Your task to perform on an android device: delete a single message in the gmail app Image 0: 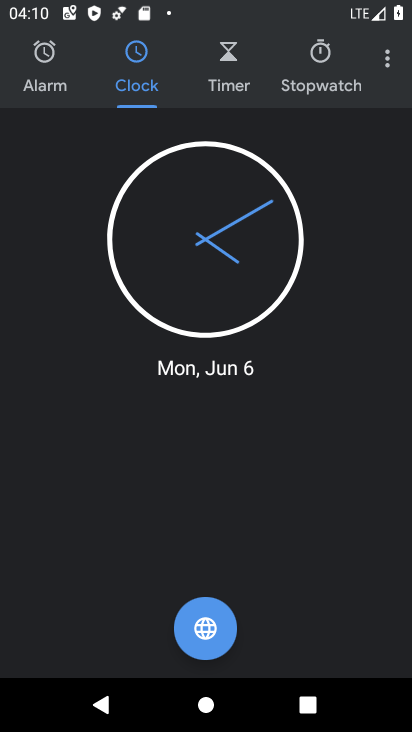
Step 0: press home button
Your task to perform on an android device: delete a single message in the gmail app Image 1: 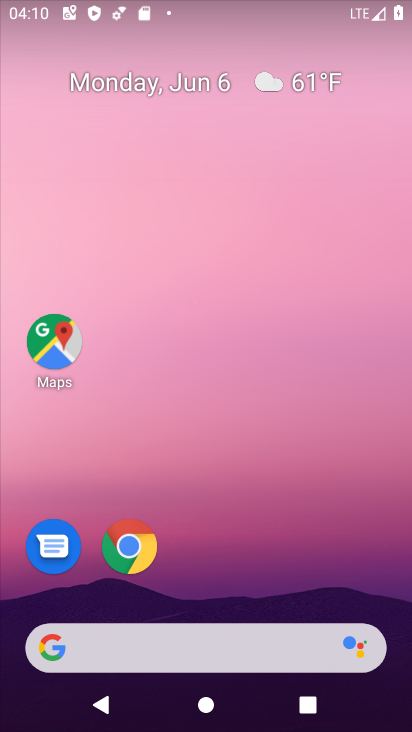
Step 1: drag from (233, 606) to (245, 308)
Your task to perform on an android device: delete a single message in the gmail app Image 2: 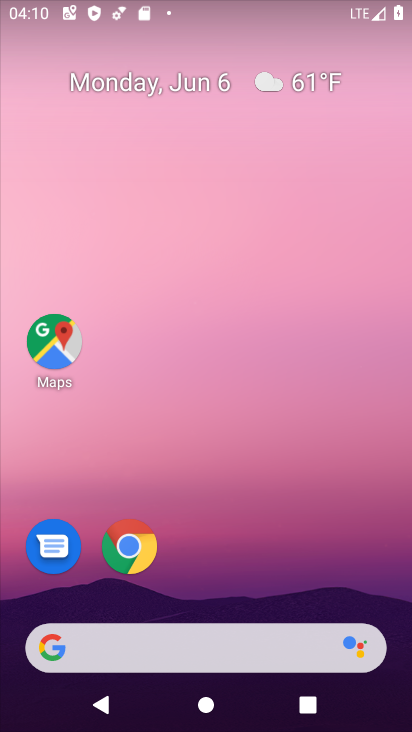
Step 2: drag from (225, 609) to (288, 181)
Your task to perform on an android device: delete a single message in the gmail app Image 3: 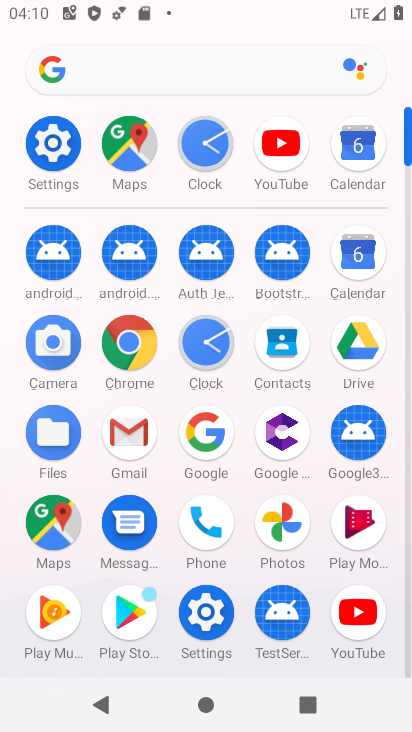
Step 3: click (128, 429)
Your task to perform on an android device: delete a single message in the gmail app Image 4: 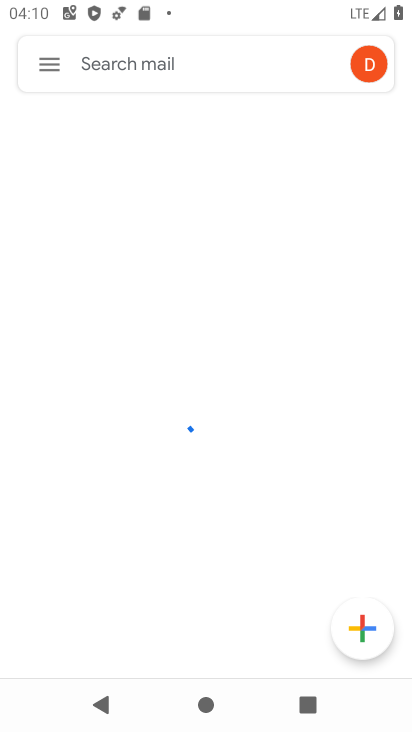
Step 4: click (48, 64)
Your task to perform on an android device: delete a single message in the gmail app Image 5: 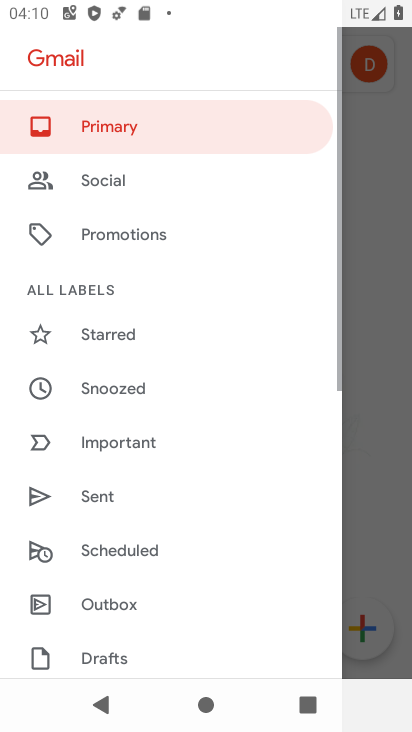
Step 5: drag from (196, 594) to (231, 161)
Your task to perform on an android device: delete a single message in the gmail app Image 6: 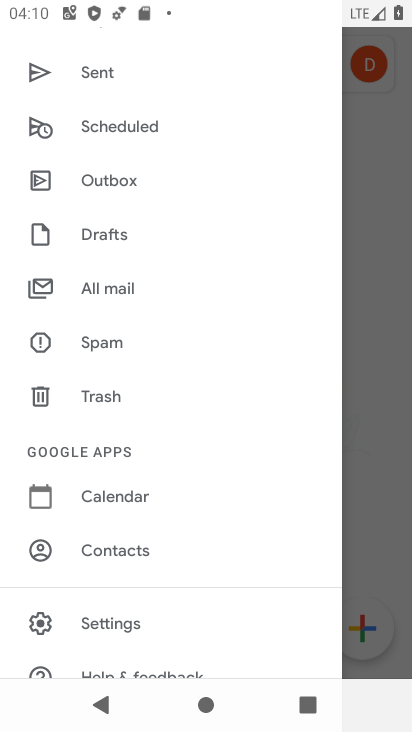
Step 6: click (103, 292)
Your task to perform on an android device: delete a single message in the gmail app Image 7: 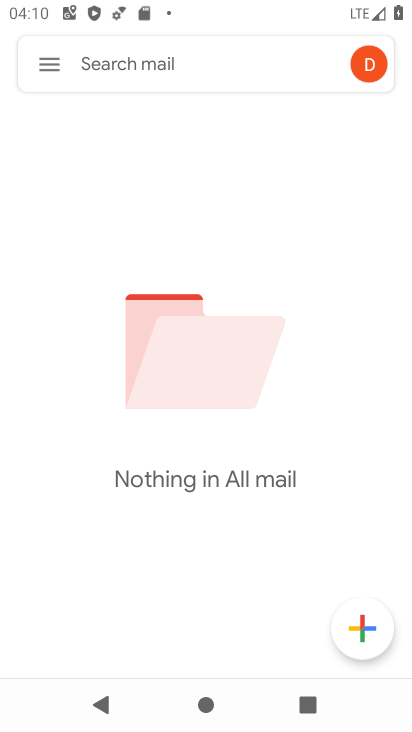
Step 7: task complete